Your task to perform on an android device: all mails in gmail Image 0: 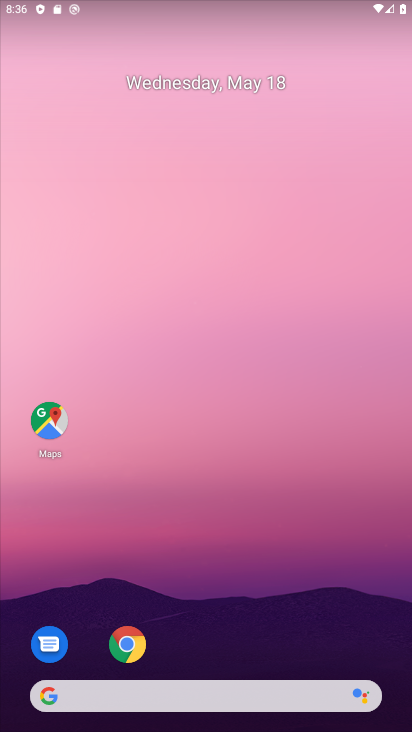
Step 0: drag from (176, 619) to (261, 7)
Your task to perform on an android device: all mails in gmail Image 1: 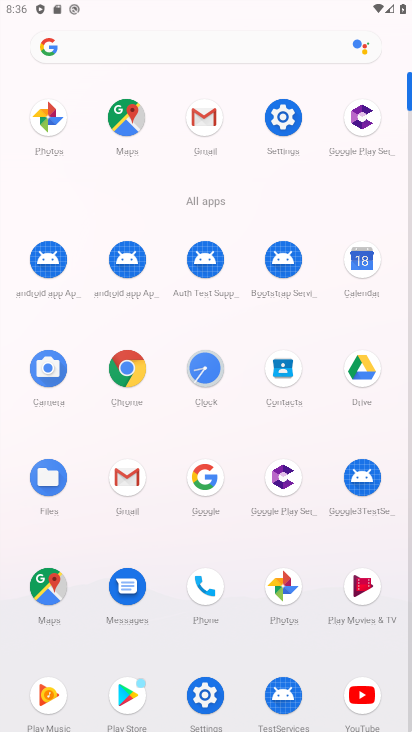
Step 1: click (204, 126)
Your task to perform on an android device: all mails in gmail Image 2: 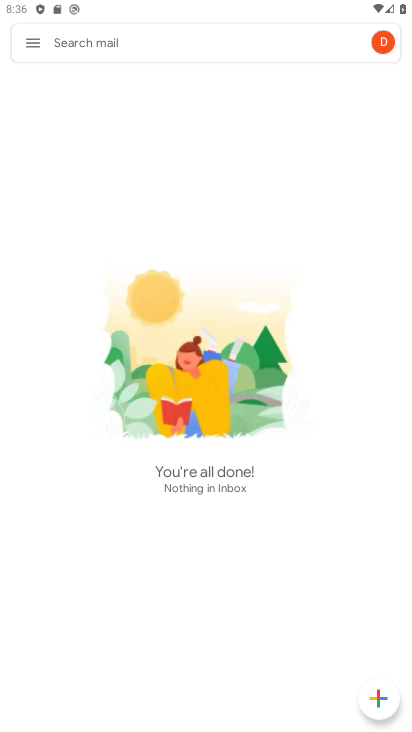
Step 2: task complete